Your task to perform on an android device: Go to location settings Image 0: 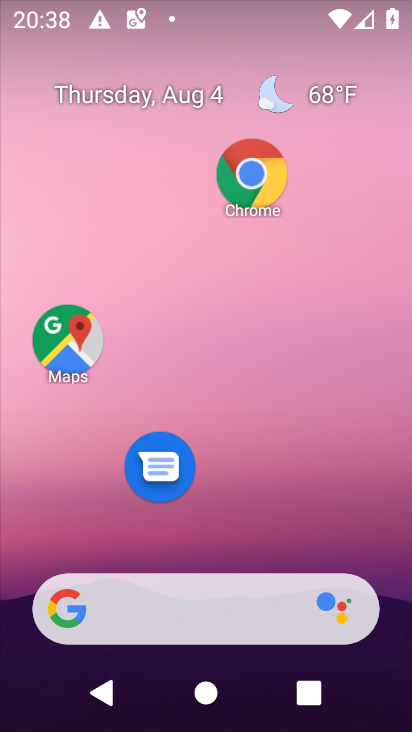
Step 0: drag from (262, 469) to (301, 14)
Your task to perform on an android device: Go to location settings Image 1: 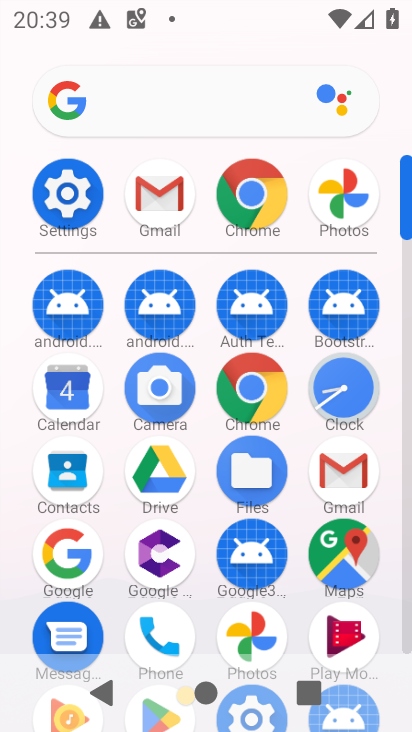
Step 1: drag from (245, 676) to (276, 165)
Your task to perform on an android device: Go to location settings Image 2: 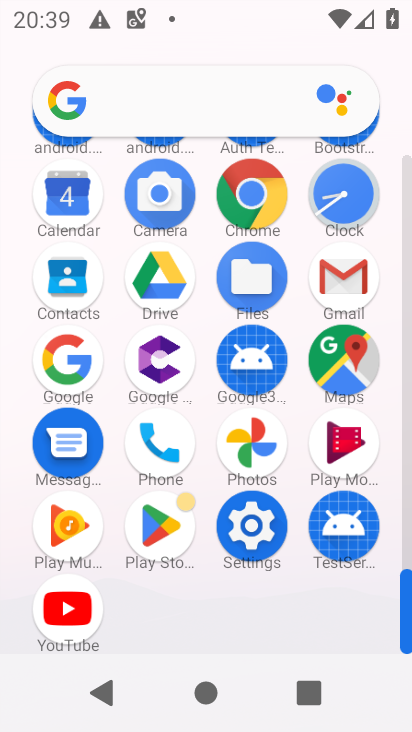
Step 2: click (236, 524)
Your task to perform on an android device: Go to location settings Image 3: 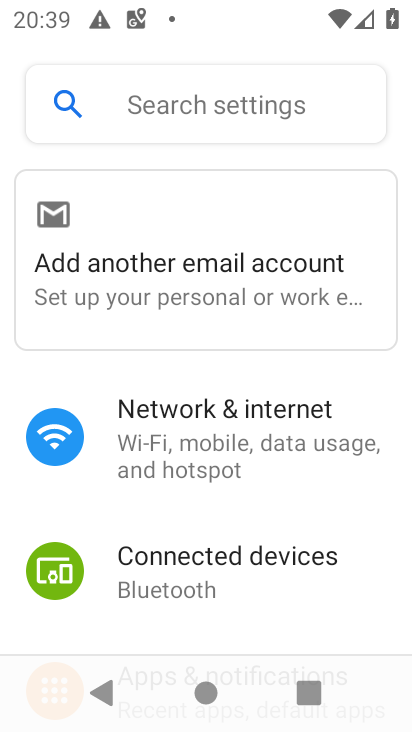
Step 3: drag from (295, 611) to (318, 109)
Your task to perform on an android device: Go to location settings Image 4: 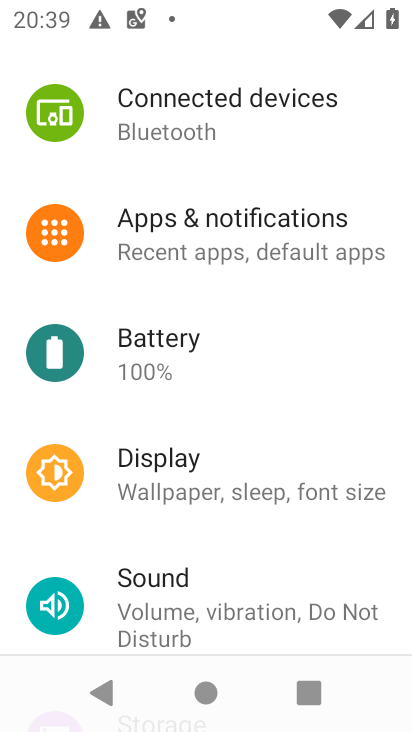
Step 4: drag from (295, 507) to (305, 83)
Your task to perform on an android device: Go to location settings Image 5: 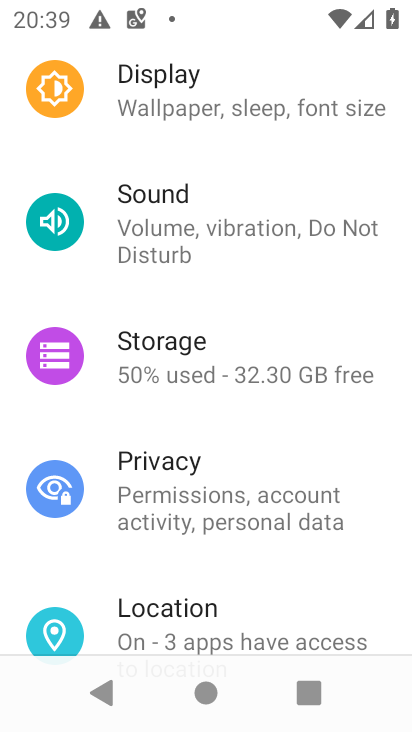
Step 5: drag from (323, 515) to (327, 128)
Your task to perform on an android device: Go to location settings Image 6: 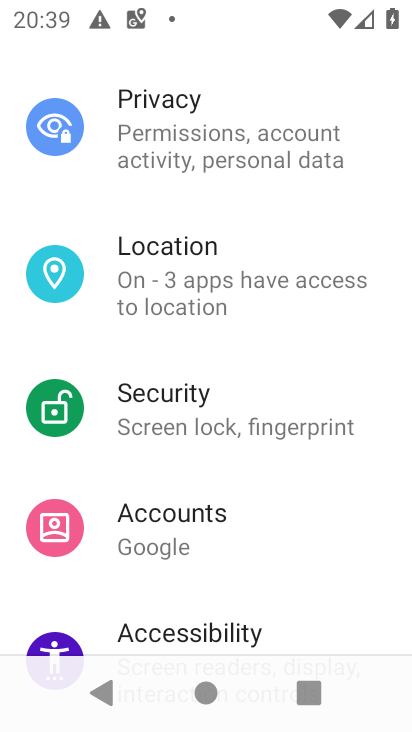
Step 6: click (197, 269)
Your task to perform on an android device: Go to location settings Image 7: 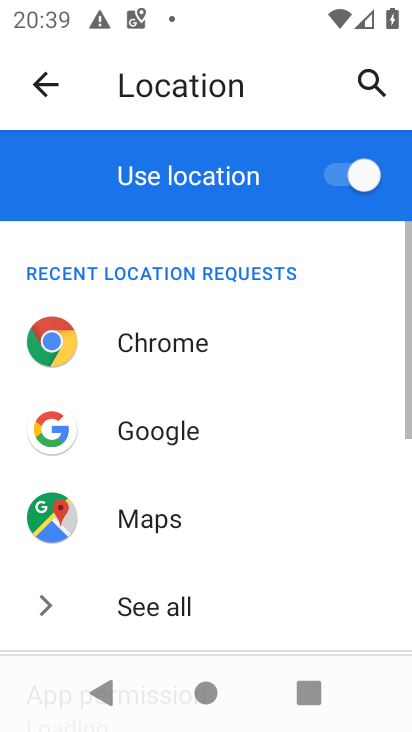
Step 7: task complete